Your task to perform on an android device: What's the weather going to be this weekend? Image 0: 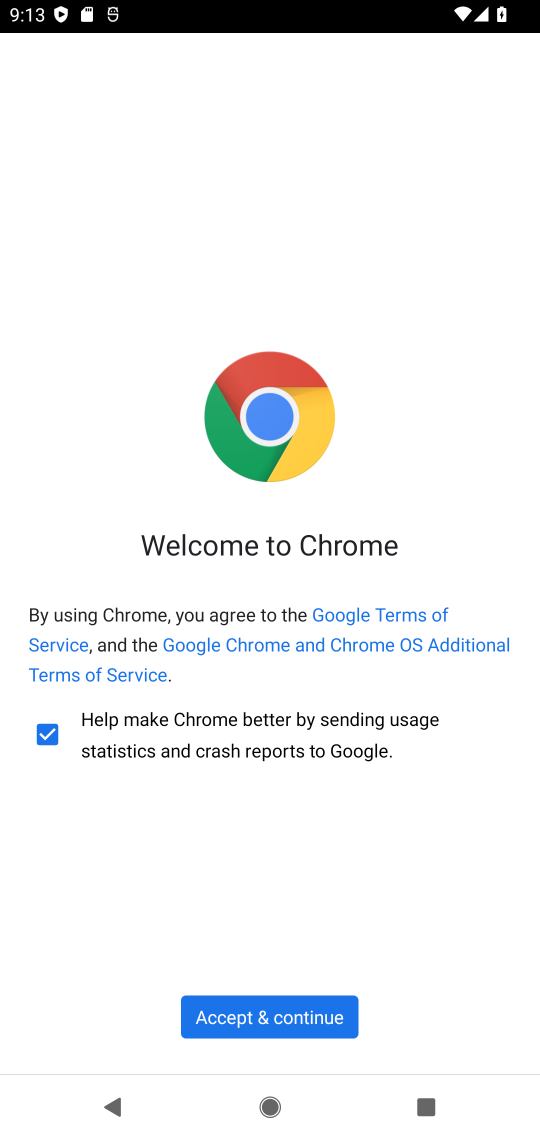
Step 0: press back button
Your task to perform on an android device: What's the weather going to be this weekend? Image 1: 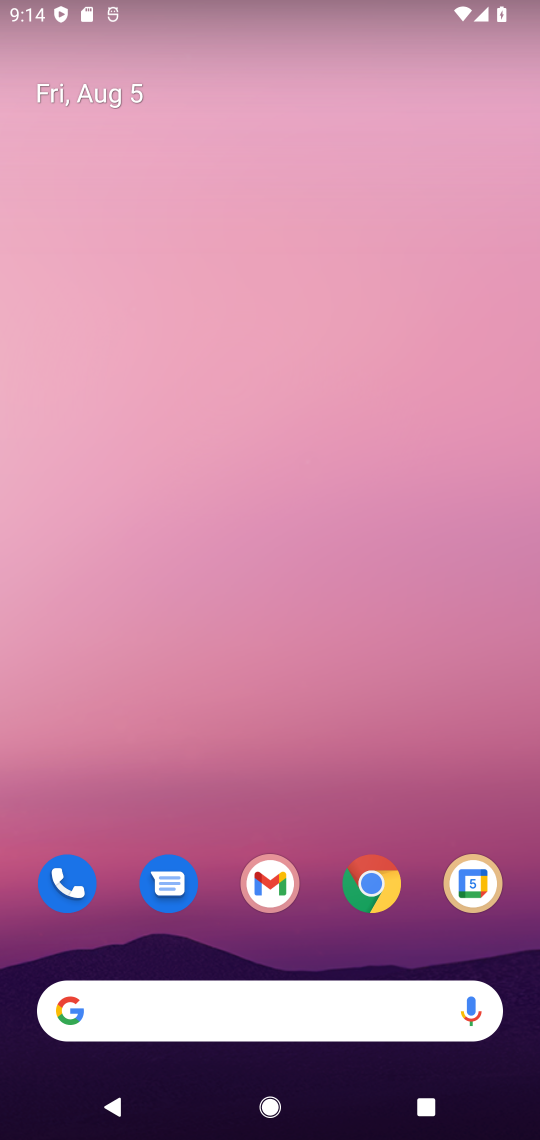
Step 1: click (306, 995)
Your task to perform on an android device: What's the weather going to be this weekend? Image 2: 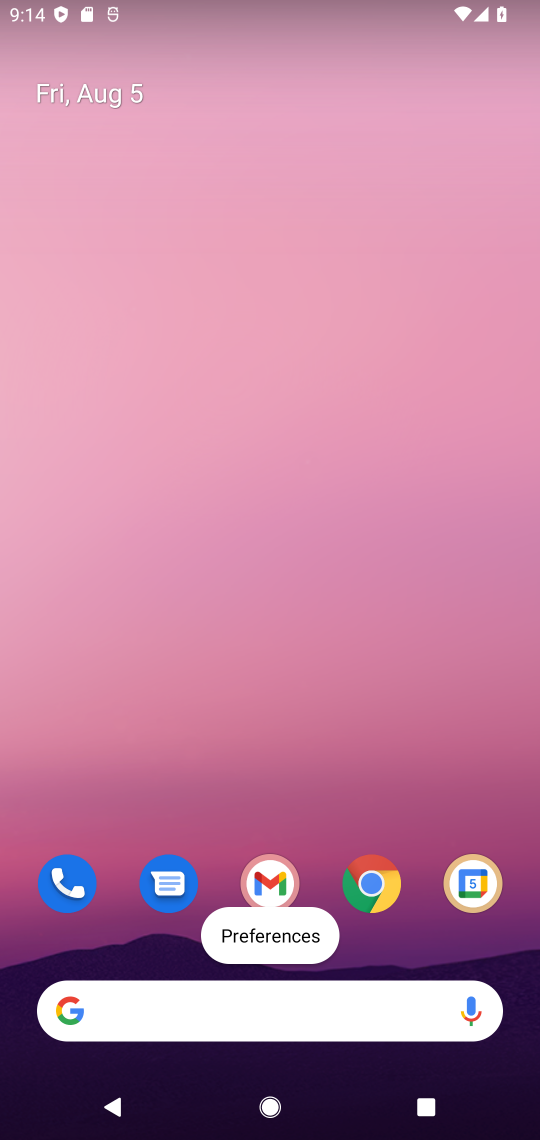
Step 2: click (333, 1032)
Your task to perform on an android device: What's the weather going to be this weekend? Image 3: 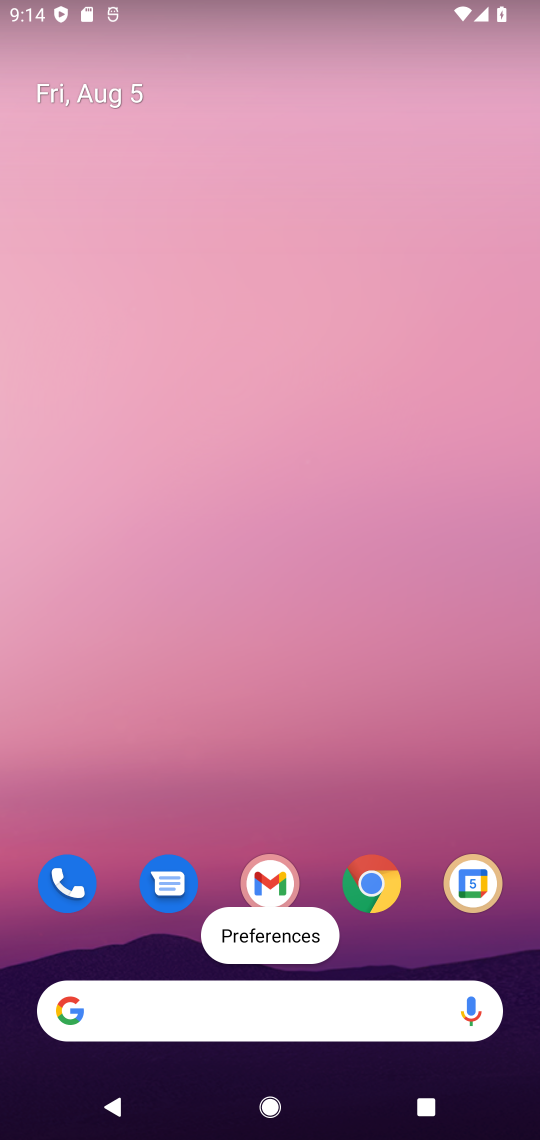
Step 3: click (206, 1023)
Your task to perform on an android device: What's the weather going to be this weekend? Image 4: 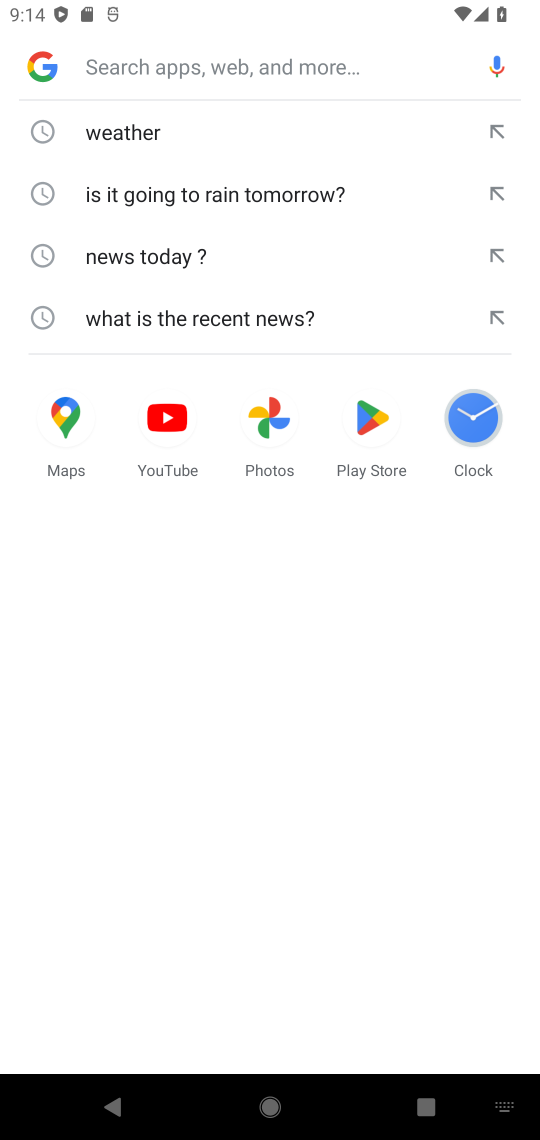
Step 4: click (158, 137)
Your task to perform on an android device: What's the weather going to be this weekend? Image 5: 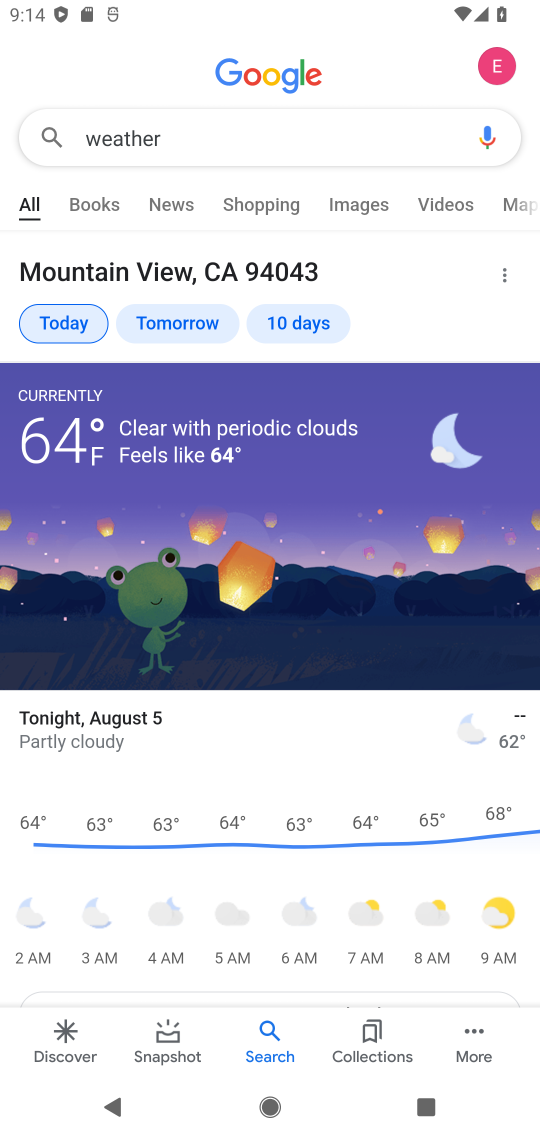
Step 5: click (280, 328)
Your task to perform on an android device: What's the weather going to be this weekend? Image 6: 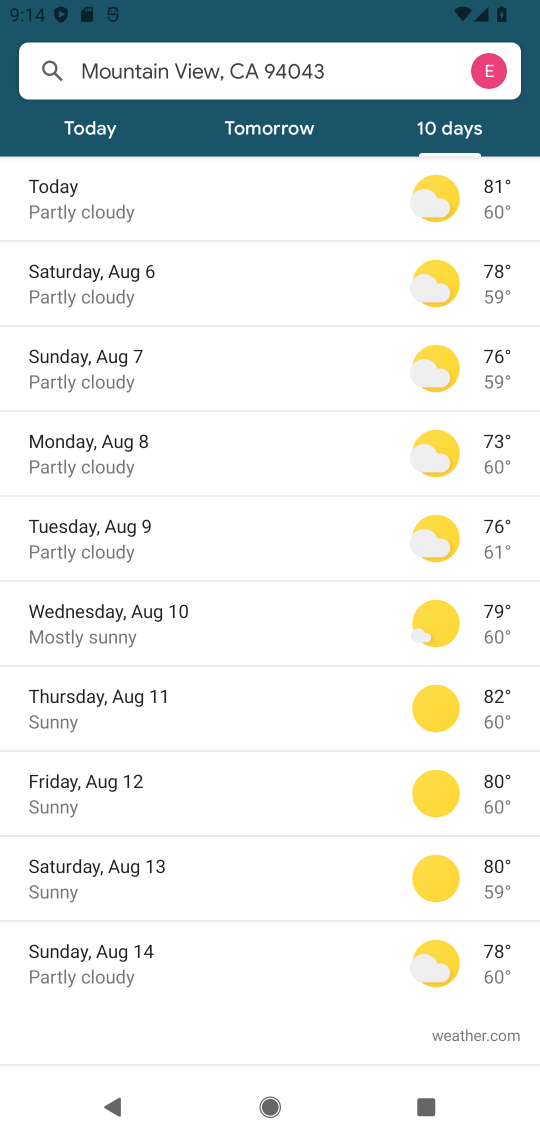
Step 6: task complete